Your task to perform on an android device: How much does a 3 bedroom apartment rent for in Philadelphia? Image 0: 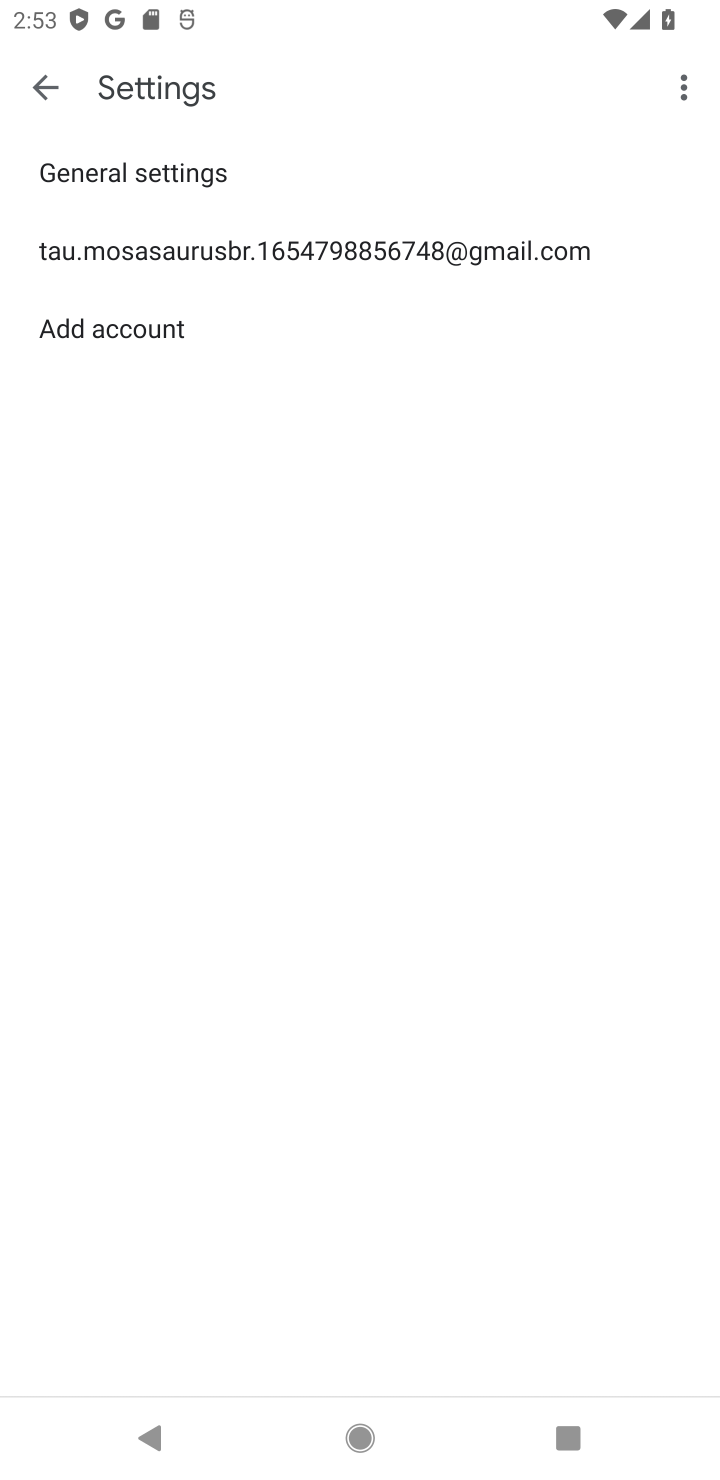
Step 0: click (62, 114)
Your task to perform on an android device: How much does a 3 bedroom apartment rent for in Philadelphia? Image 1: 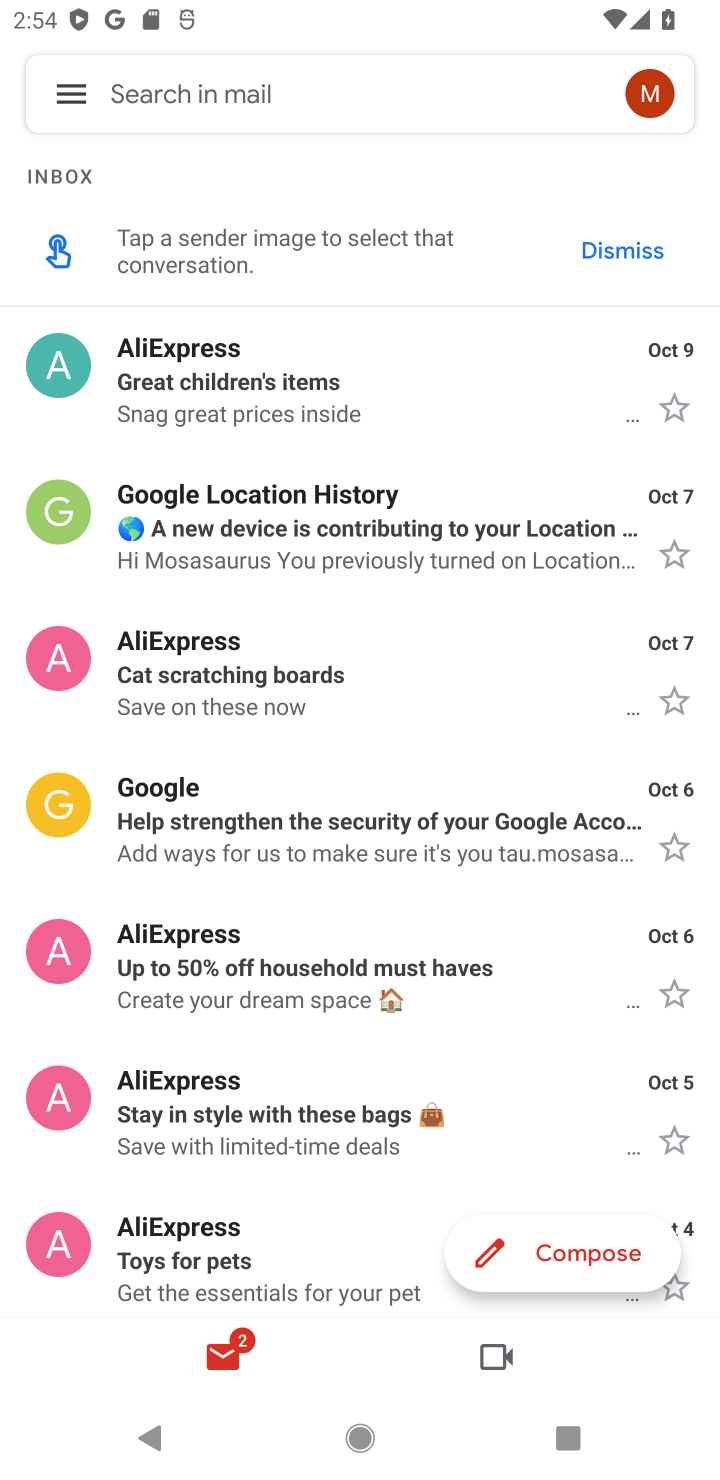
Step 1: press home button
Your task to perform on an android device: How much does a 3 bedroom apartment rent for in Philadelphia? Image 2: 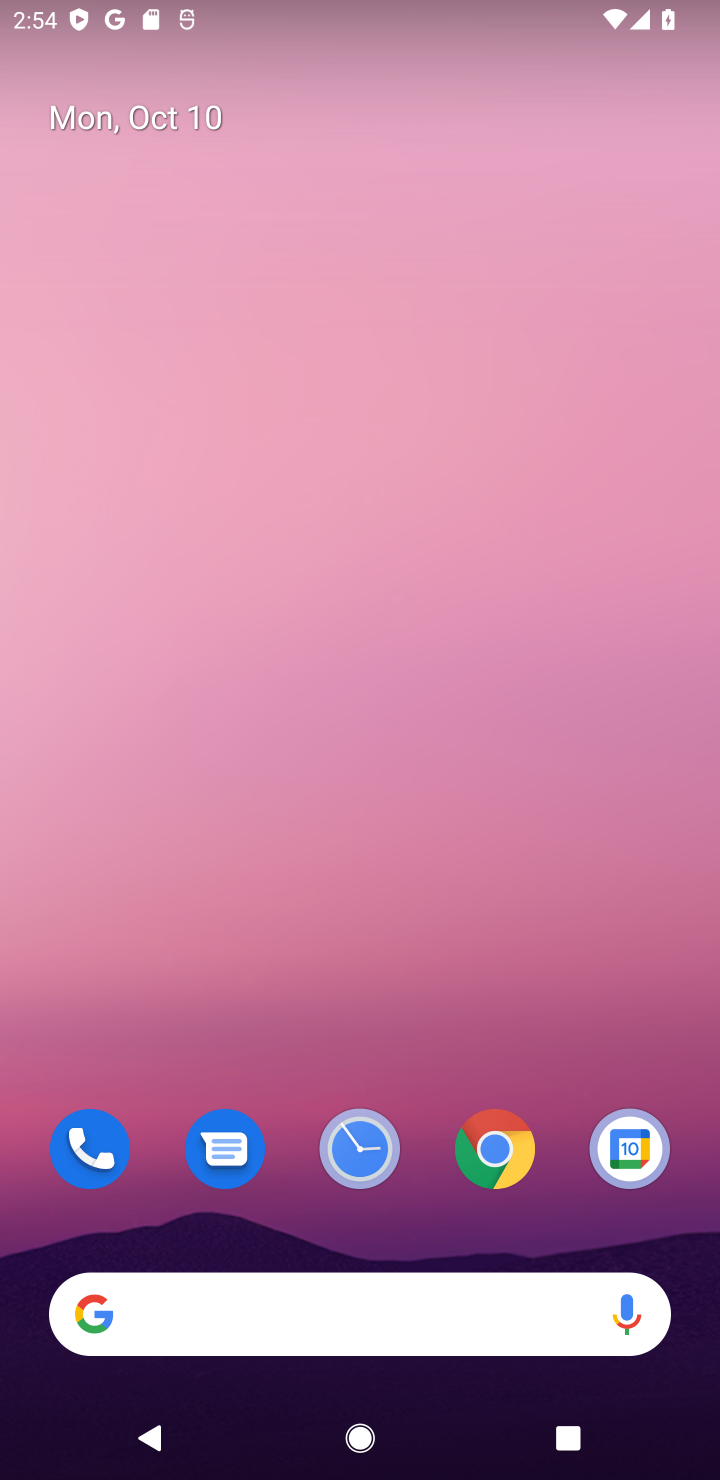
Step 2: click (238, 1276)
Your task to perform on an android device: How much does a 3 bedroom apartment rent for in Philadelphia? Image 3: 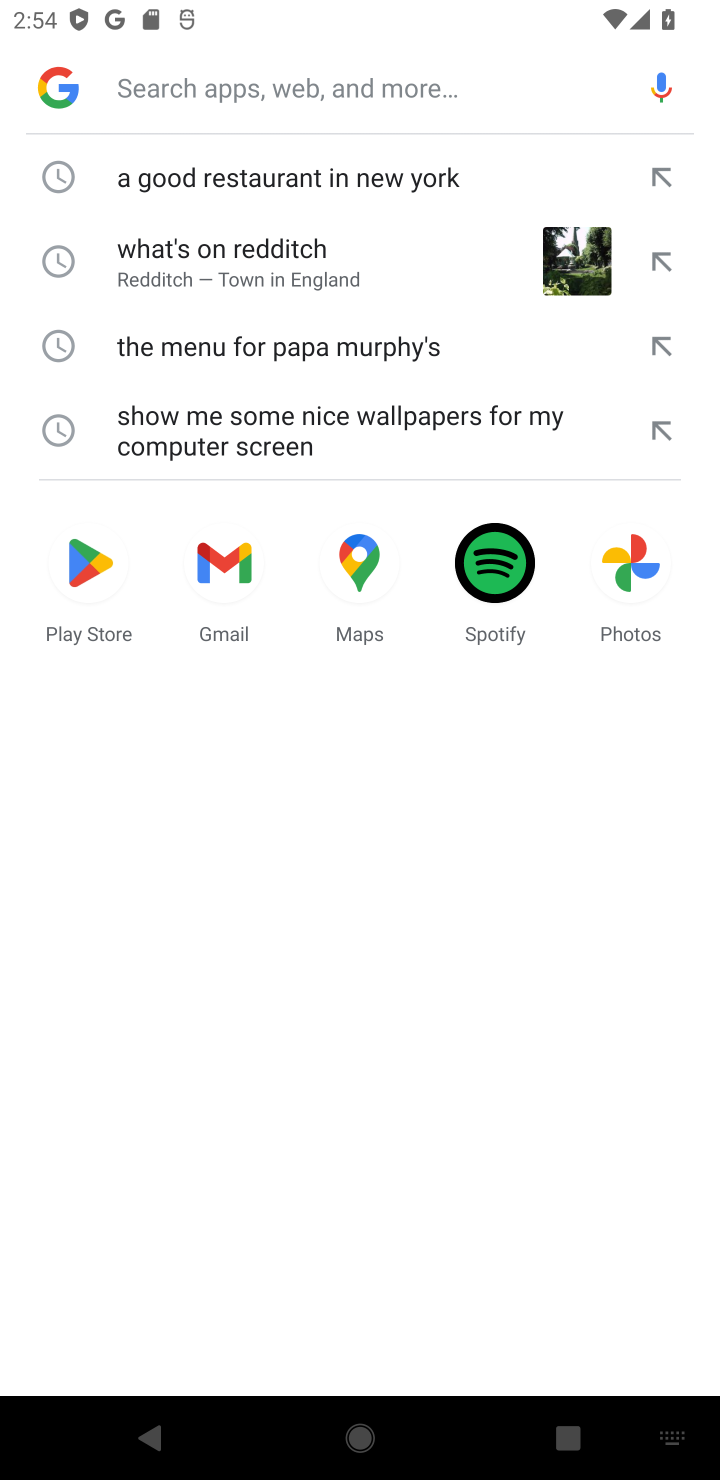
Step 3: type "3 bedroom apartment rent for in Philadelphia"
Your task to perform on an android device: How much does a 3 bedroom apartment rent for in Philadelphia? Image 4: 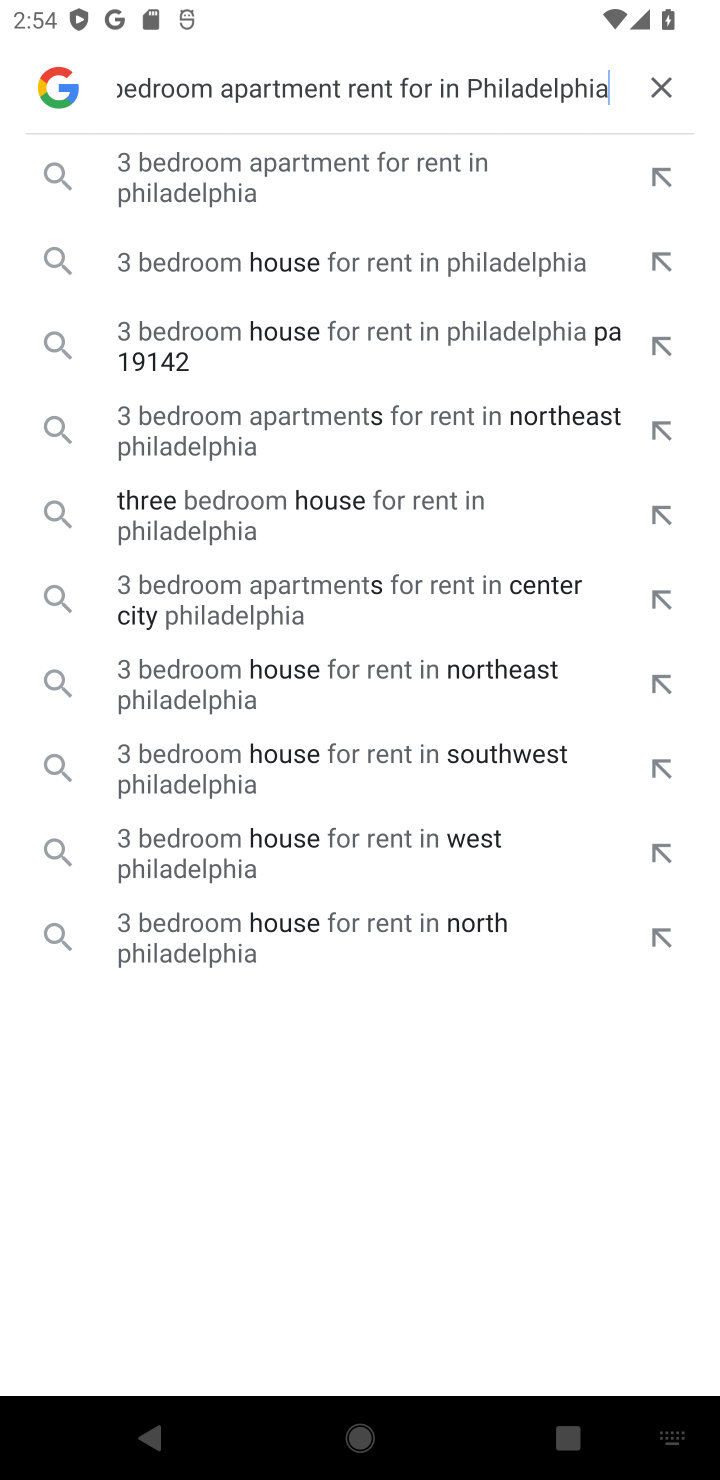
Step 4: click (333, 172)
Your task to perform on an android device: How much does a 3 bedroom apartment rent for in Philadelphia? Image 5: 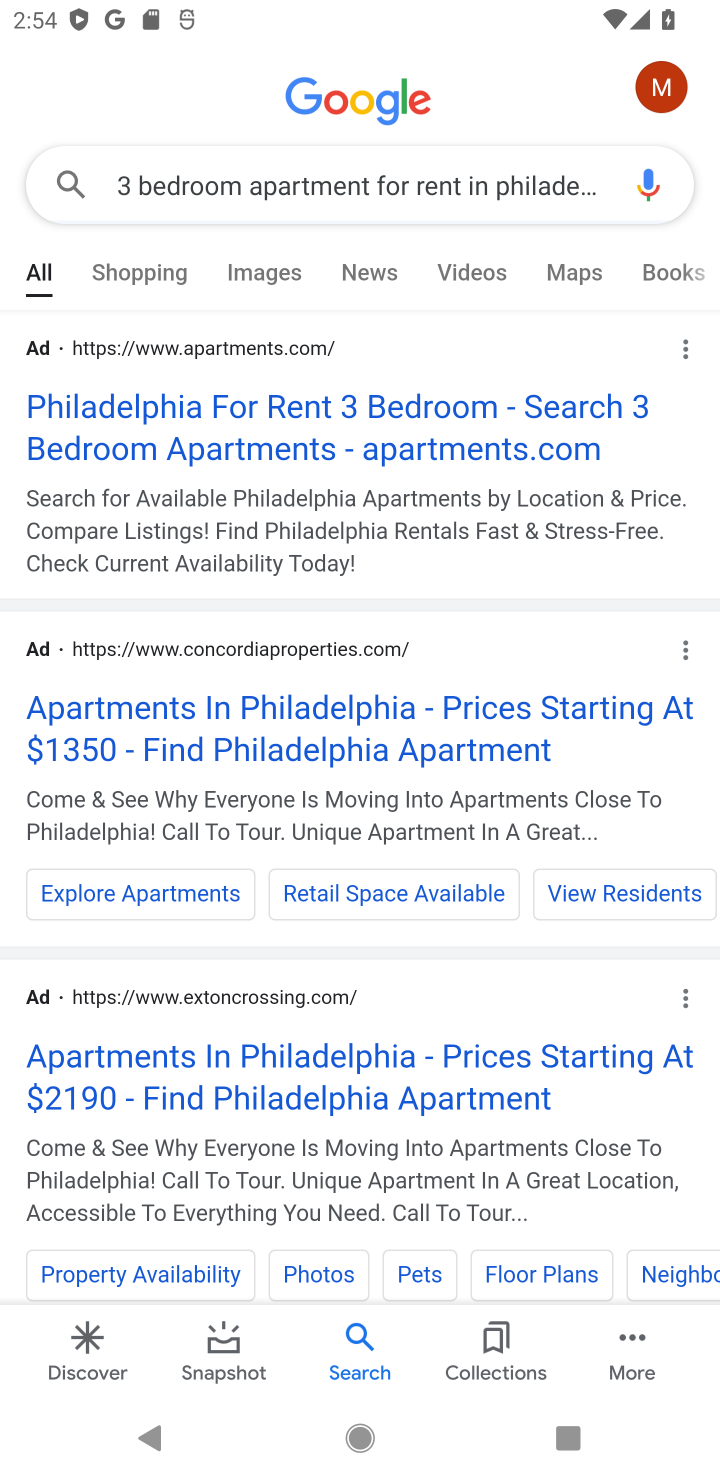
Step 5: task complete